Your task to perform on an android device: delete browsing data in the chrome app Image 0: 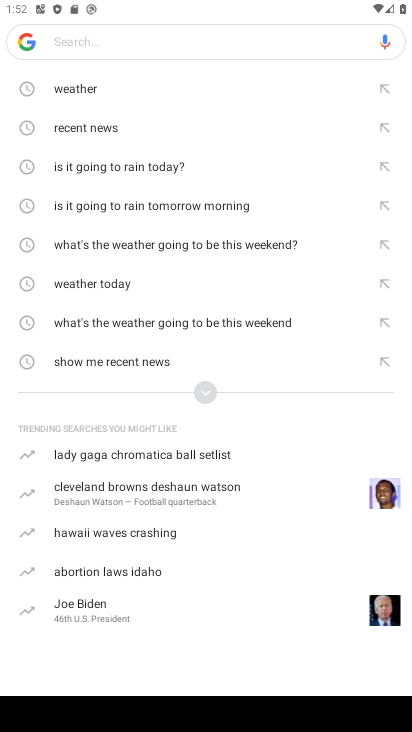
Step 0: press home button
Your task to perform on an android device: delete browsing data in the chrome app Image 1: 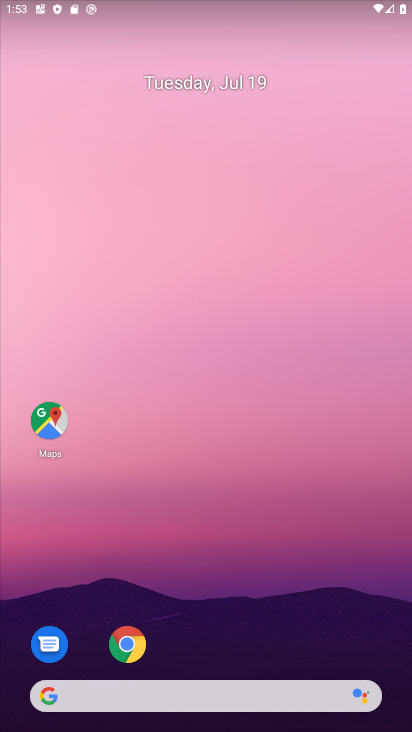
Step 1: click (228, 624)
Your task to perform on an android device: delete browsing data in the chrome app Image 2: 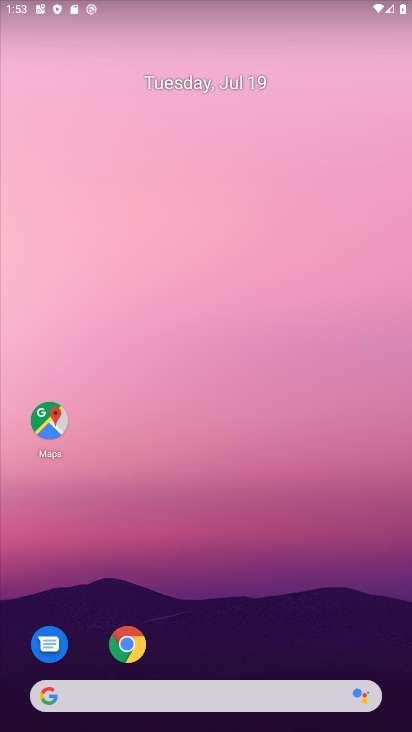
Step 2: click (140, 639)
Your task to perform on an android device: delete browsing data in the chrome app Image 3: 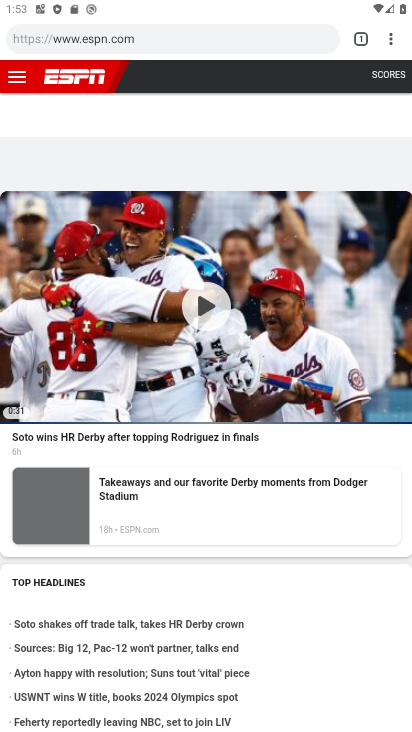
Step 3: click (391, 42)
Your task to perform on an android device: delete browsing data in the chrome app Image 4: 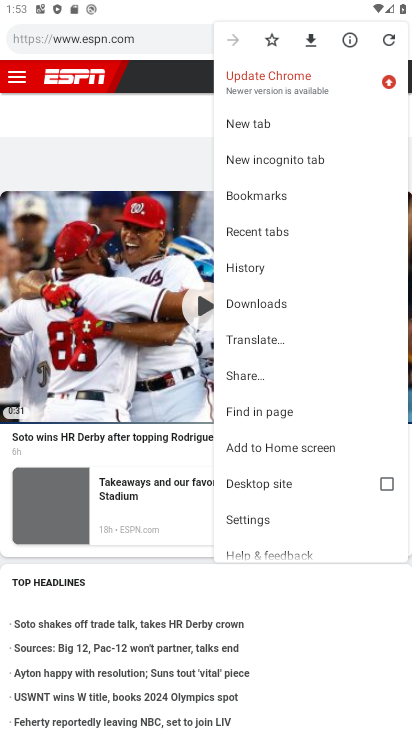
Step 4: click (281, 518)
Your task to perform on an android device: delete browsing data in the chrome app Image 5: 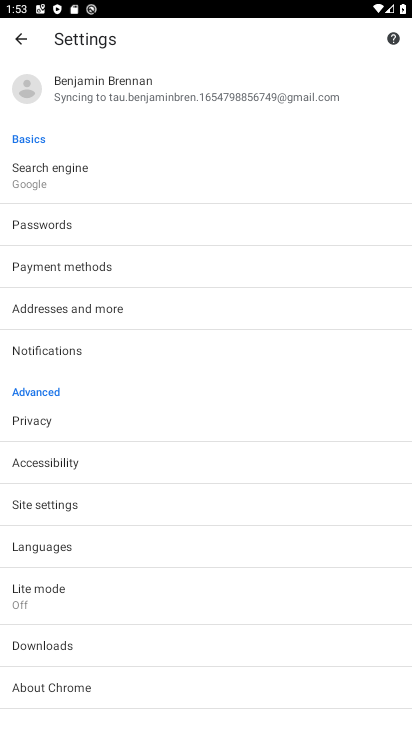
Step 5: click (19, 40)
Your task to perform on an android device: delete browsing data in the chrome app Image 6: 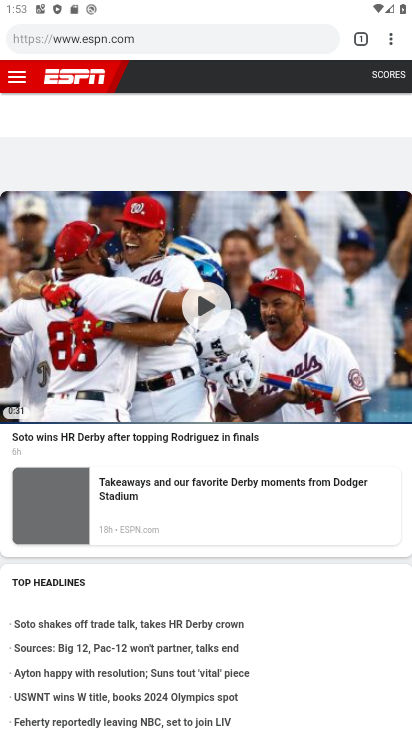
Step 6: click (390, 40)
Your task to perform on an android device: delete browsing data in the chrome app Image 7: 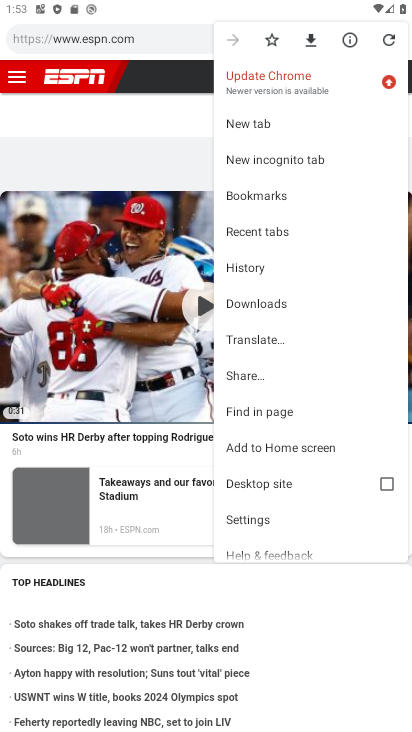
Step 7: click (254, 263)
Your task to perform on an android device: delete browsing data in the chrome app Image 8: 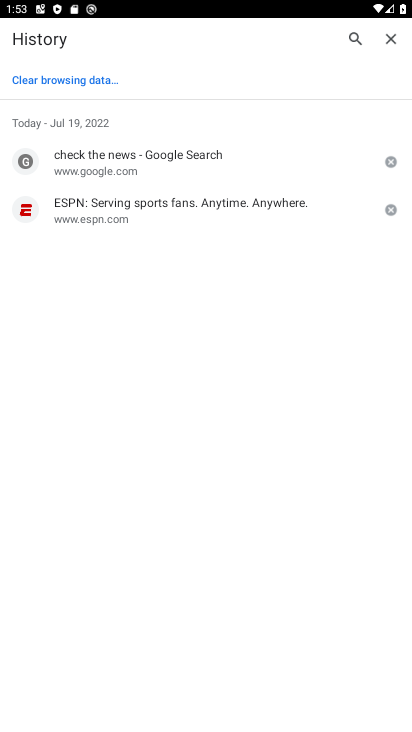
Step 8: click (78, 79)
Your task to perform on an android device: delete browsing data in the chrome app Image 9: 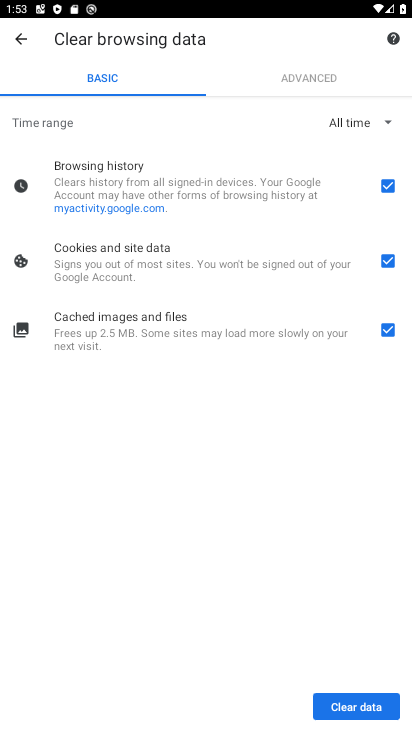
Step 9: click (367, 701)
Your task to perform on an android device: delete browsing data in the chrome app Image 10: 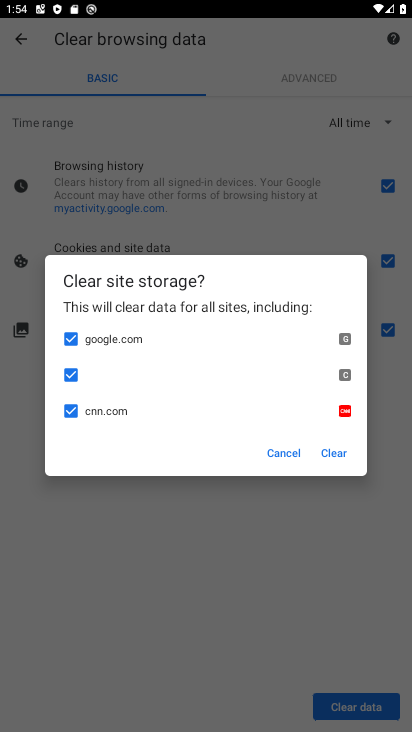
Step 10: click (328, 457)
Your task to perform on an android device: delete browsing data in the chrome app Image 11: 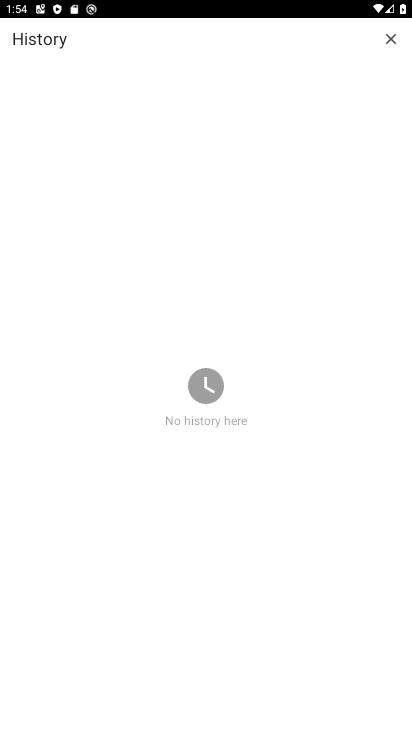
Step 11: task complete